Your task to perform on an android device: Search for desk lamps on article.com Image 0: 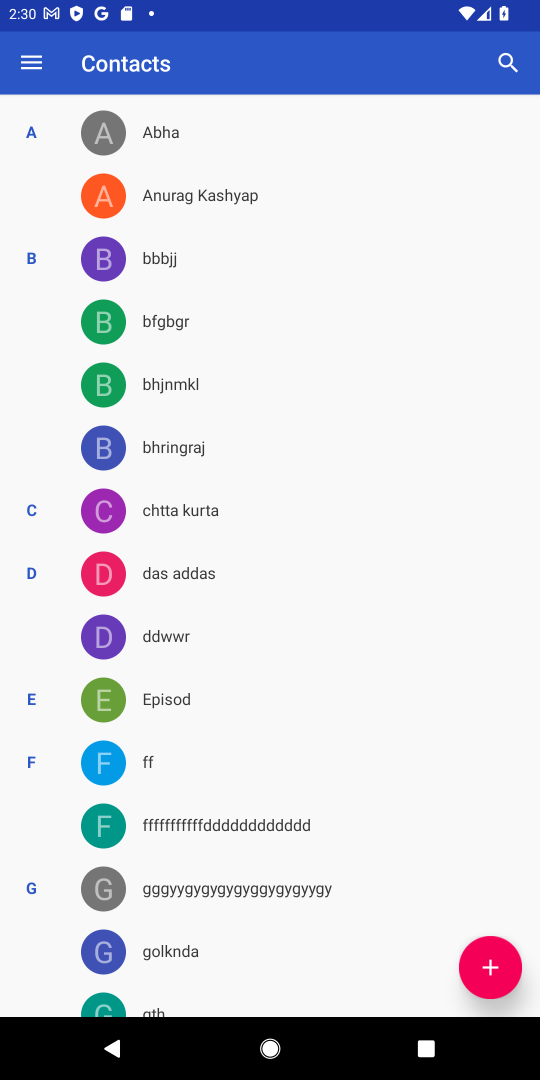
Step 0: press home button
Your task to perform on an android device: Search for desk lamps on article.com Image 1: 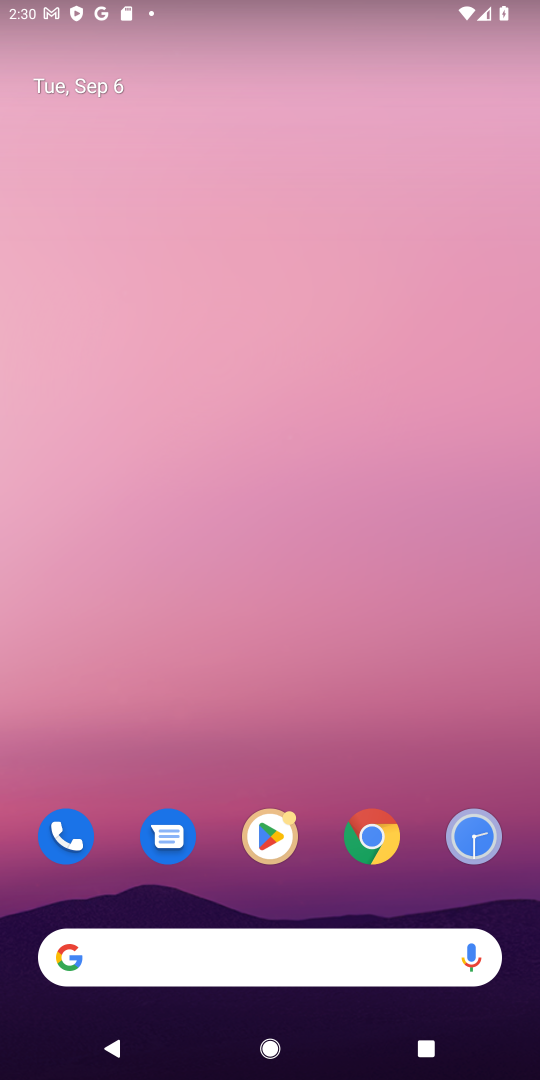
Step 1: click (257, 951)
Your task to perform on an android device: Search for desk lamps on article.com Image 2: 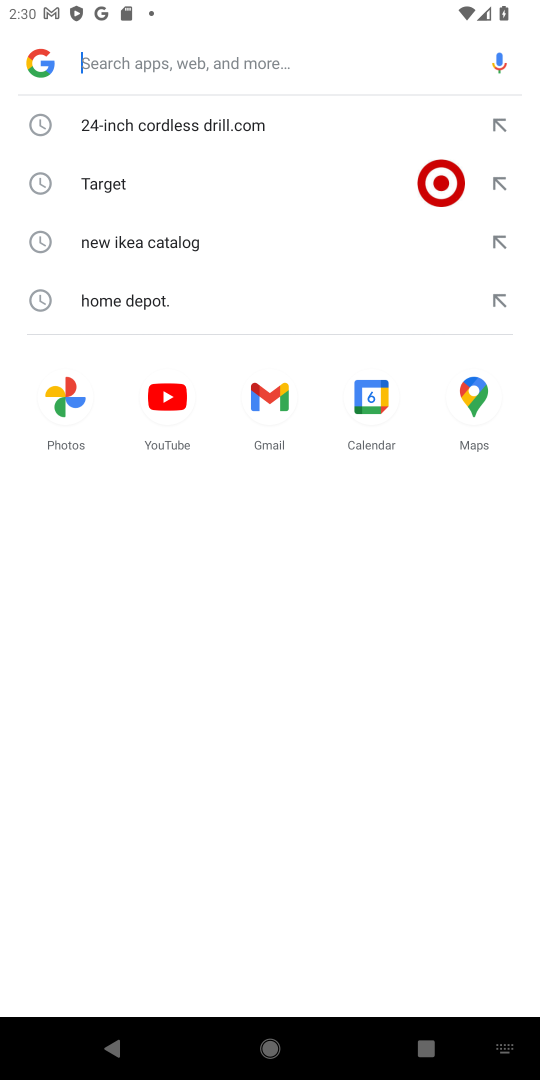
Step 2: type "article.com"
Your task to perform on an android device: Search for desk lamps on article.com Image 3: 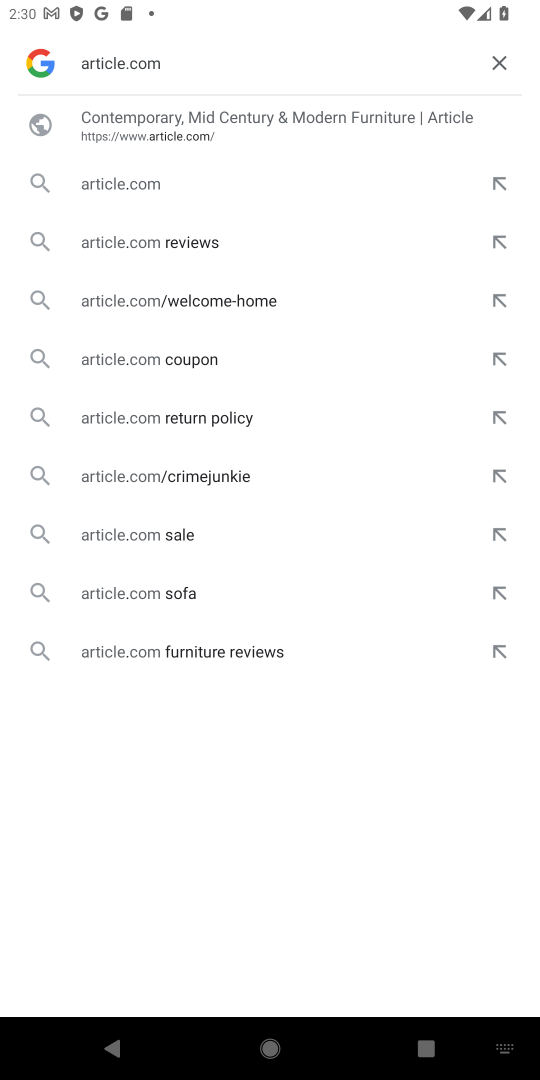
Step 3: click (126, 181)
Your task to perform on an android device: Search for desk lamps on article.com Image 4: 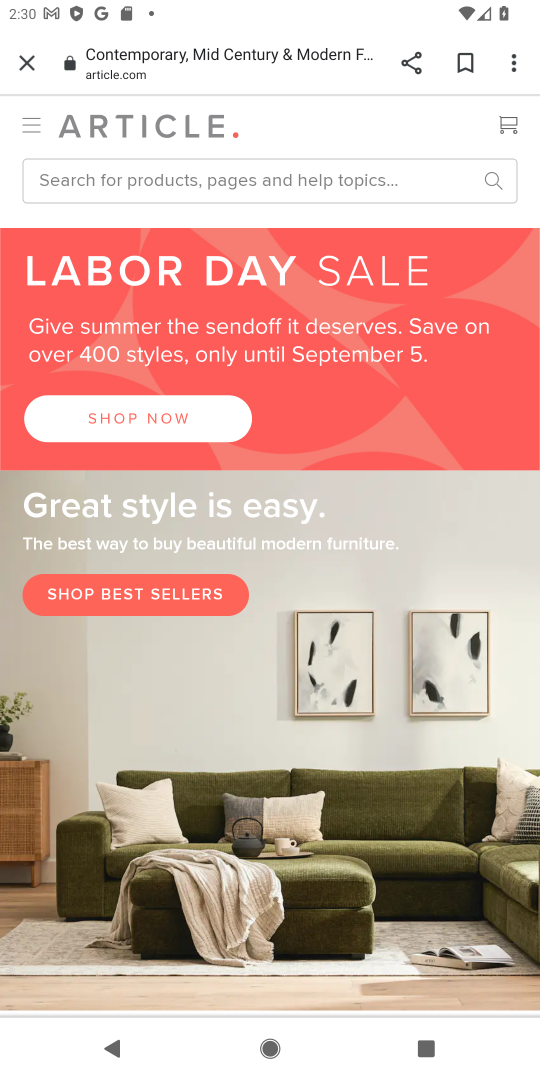
Step 4: click (124, 179)
Your task to perform on an android device: Search for desk lamps on article.com Image 5: 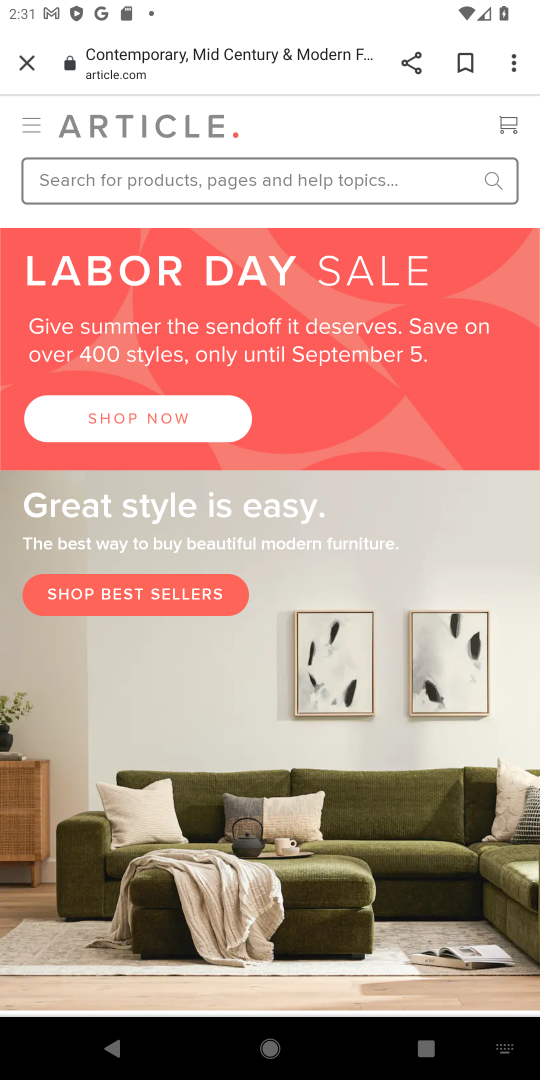
Step 5: type "desk lamps"
Your task to perform on an android device: Search for desk lamps on article.com Image 6: 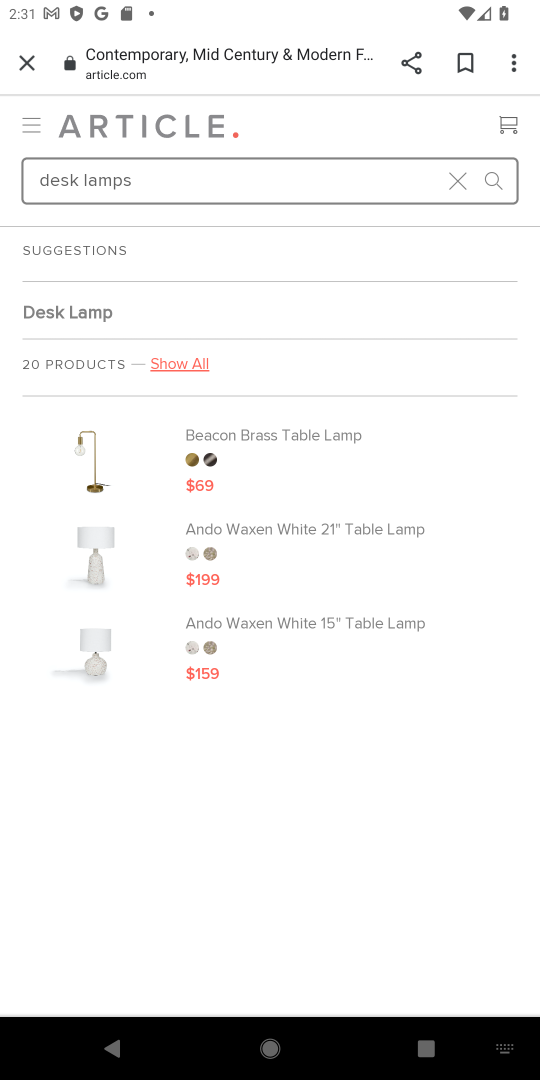
Step 6: task complete